Your task to perform on an android device: check battery use Image 0: 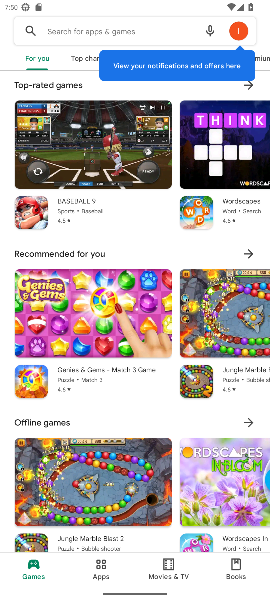
Step 0: press home button
Your task to perform on an android device: check battery use Image 1: 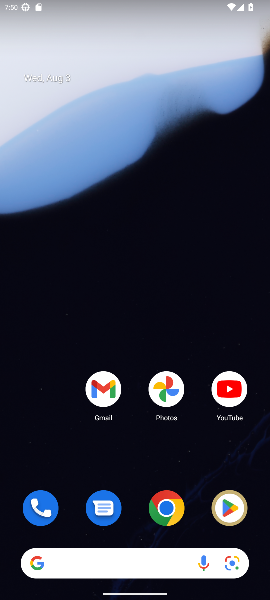
Step 1: drag from (137, 523) to (107, 28)
Your task to perform on an android device: check battery use Image 2: 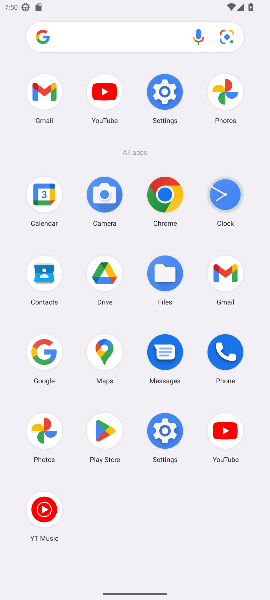
Step 2: click (169, 436)
Your task to perform on an android device: check battery use Image 3: 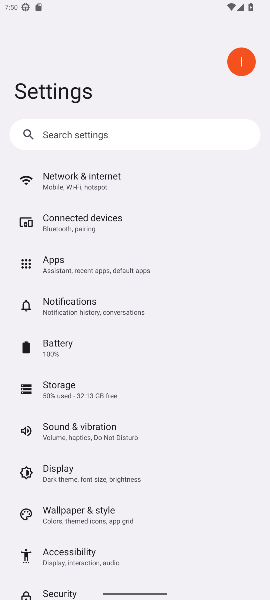
Step 3: drag from (112, 442) to (76, 295)
Your task to perform on an android device: check battery use Image 4: 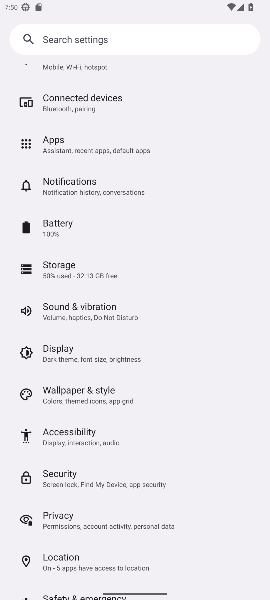
Step 4: click (61, 235)
Your task to perform on an android device: check battery use Image 5: 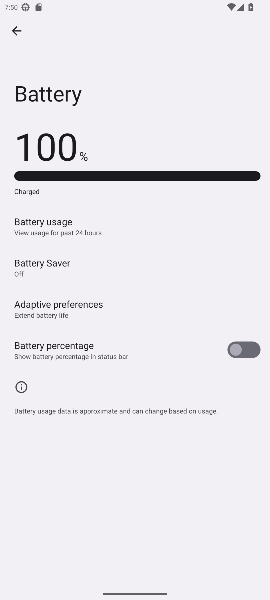
Step 5: click (44, 233)
Your task to perform on an android device: check battery use Image 6: 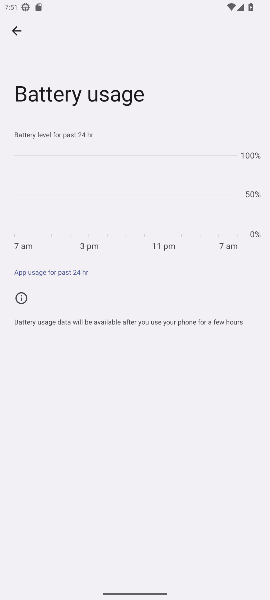
Step 6: task complete